Your task to perform on an android device: find photos in the google photos app Image 0: 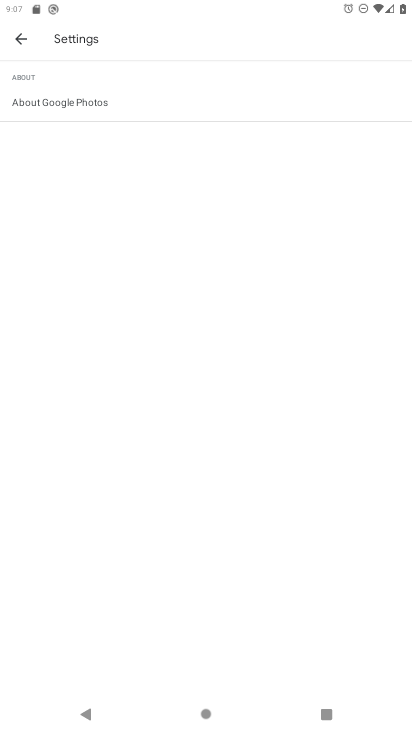
Step 0: press home button
Your task to perform on an android device: find photos in the google photos app Image 1: 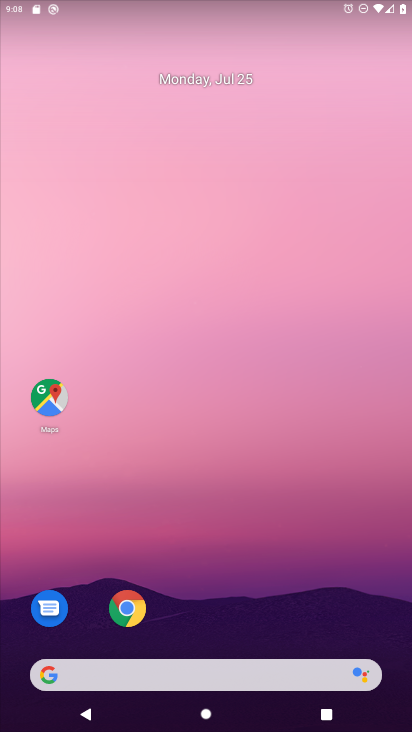
Step 1: drag from (104, 705) to (161, 24)
Your task to perform on an android device: find photos in the google photos app Image 2: 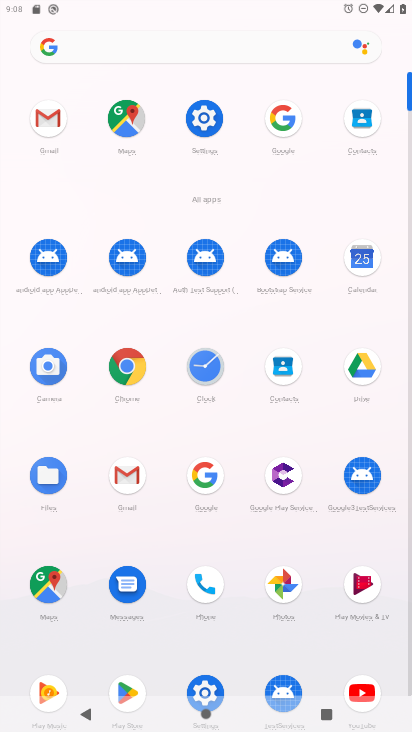
Step 2: click (275, 571)
Your task to perform on an android device: find photos in the google photos app Image 3: 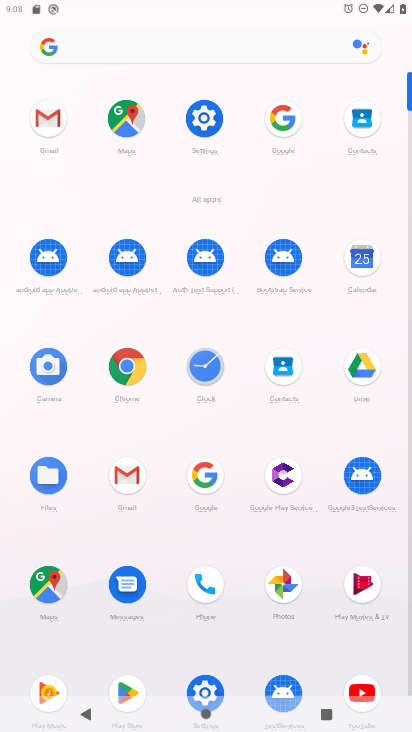
Step 3: click (275, 571)
Your task to perform on an android device: find photos in the google photos app Image 4: 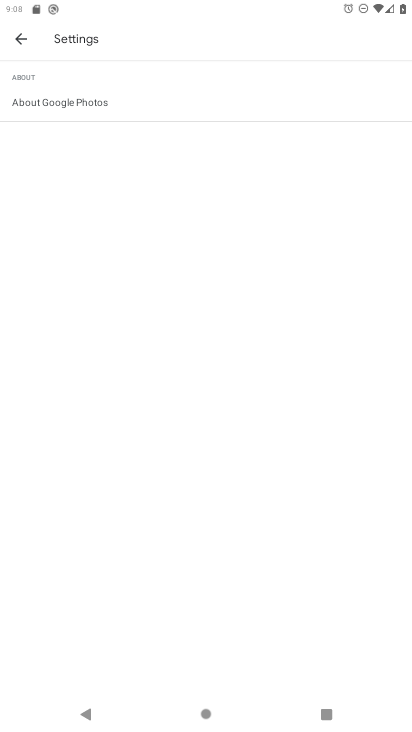
Step 4: click (21, 39)
Your task to perform on an android device: find photos in the google photos app Image 5: 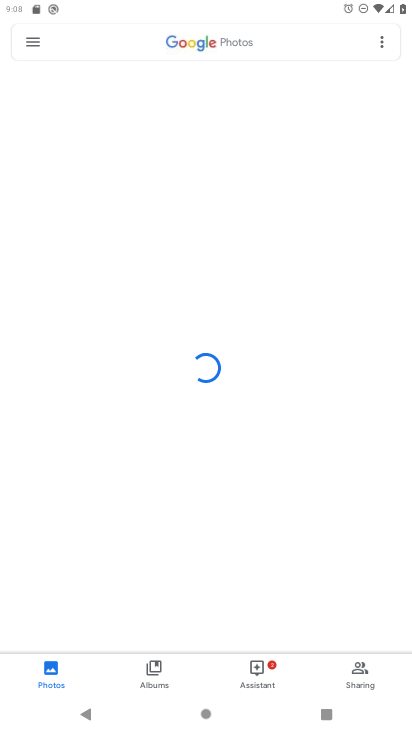
Step 5: click (129, 40)
Your task to perform on an android device: find photos in the google photos app Image 6: 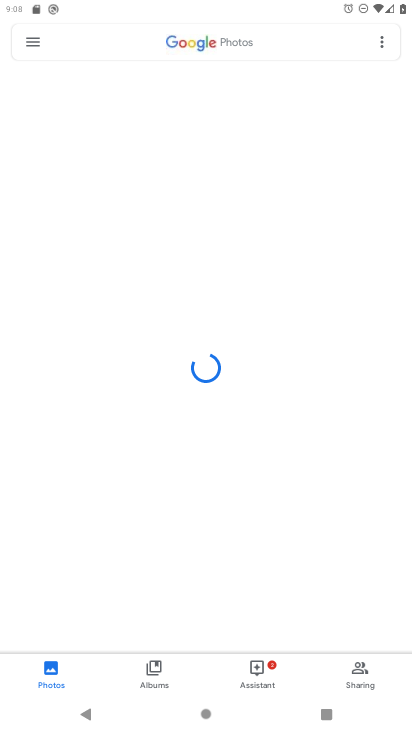
Step 6: click (129, 40)
Your task to perform on an android device: find photos in the google photos app Image 7: 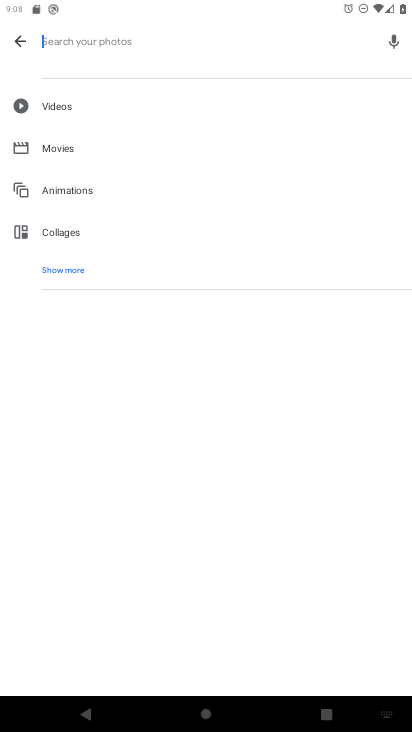
Step 7: task complete